Your task to perform on an android device: turn on airplane mode Image 0: 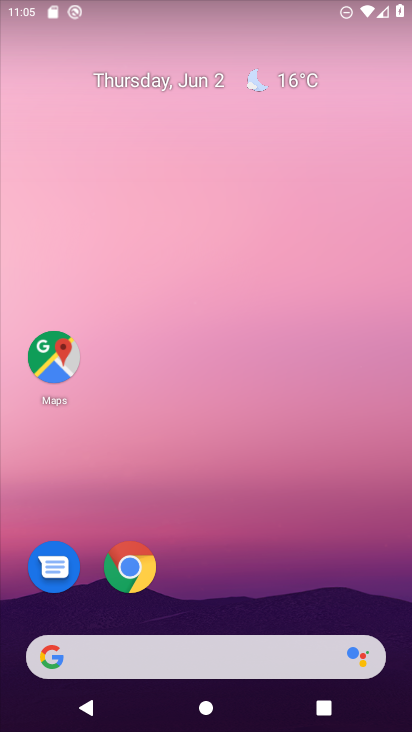
Step 0: drag from (177, 14) to (158, 729)
Your task to perform on an android device: turn on airplane mode Image 1: 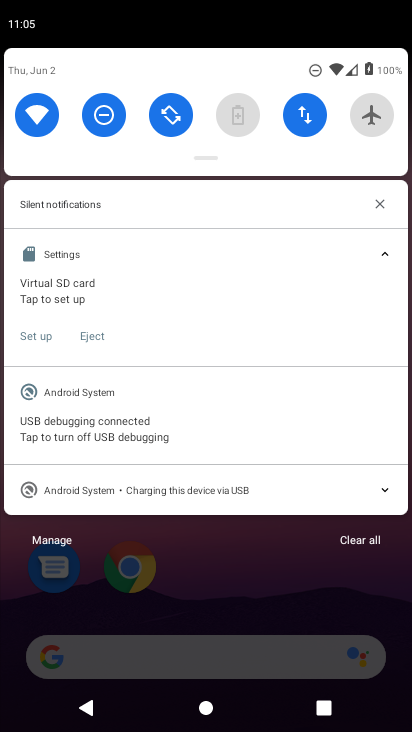
Step 1: drag from (214, 167) to (212, 549)
Your task to perform on an android device: turn on airplane mode Image 2: 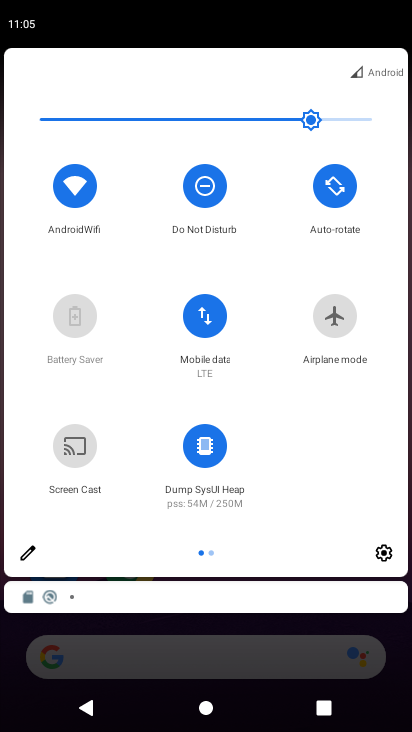
Step 2: click (346, 314)
Your task to perform on an android device: turn on airplane mode Image 3: 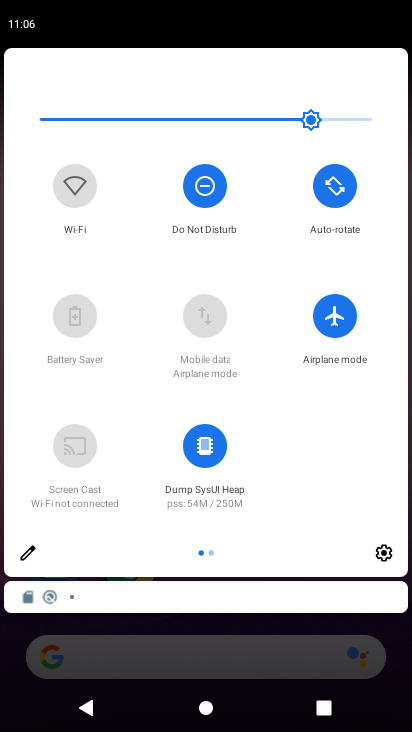
Step 3: task complete